Your task to perform on an android device: Open Google Maps Image 0: 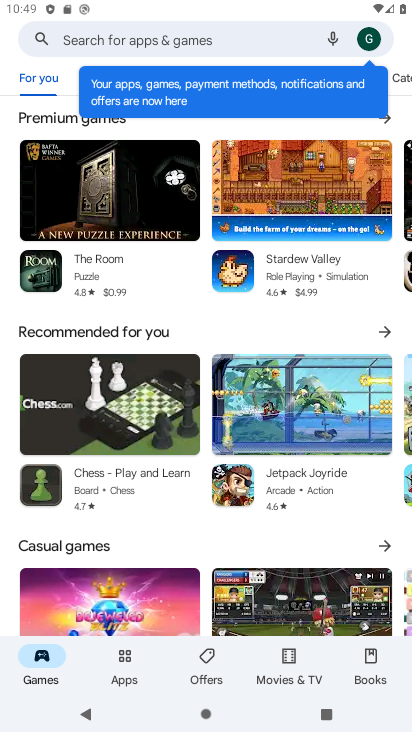
Step 0: press home button
Your task to perform on an android device: Open Google Maps Image 1: 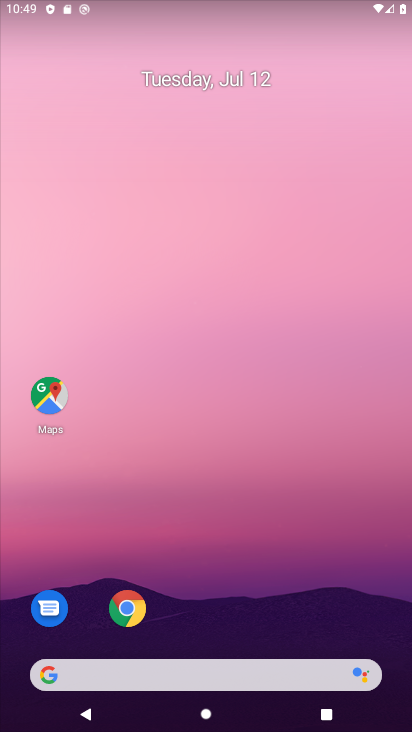
Step 1: drag from (229, 584) to (234, 130)
Your task to perform on an android device: Open Google Maps Image 2: 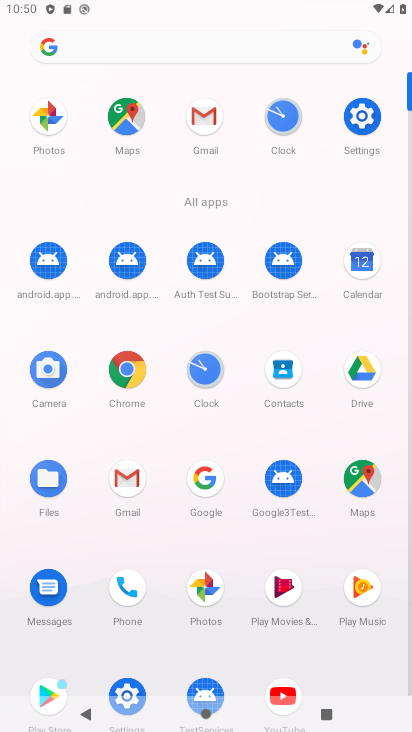
Step 2: click (362, 480)
Your task to perform on an android device: Open Google Maps Image 3: 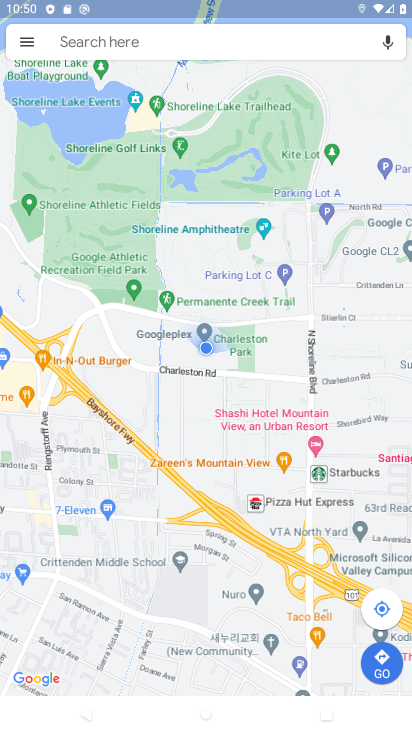
Step 3: task complete